Your task to perform on an android device: What's on my calendar today? Image 0: 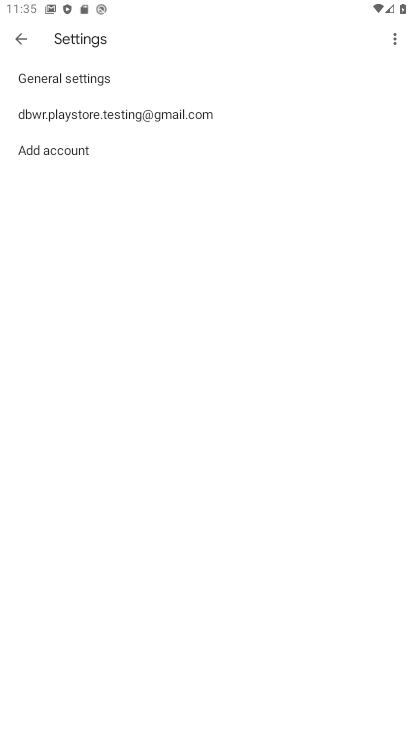
Step 0: press home button
Your task to perform on an android device: What's on my calendar today? Image 1: 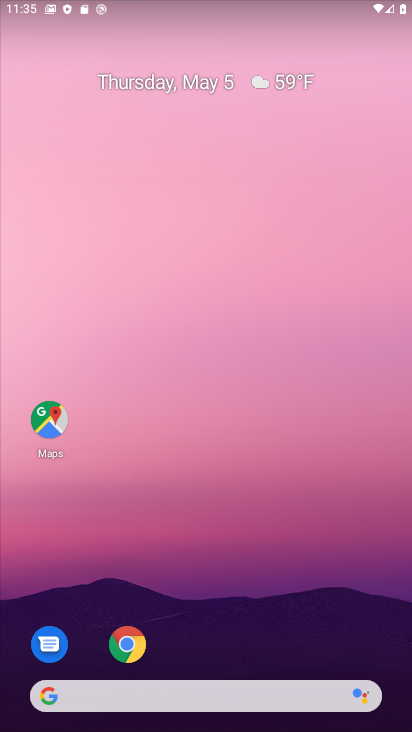
Step 1: drag from (185, 658) to (248, 80)
Your task to perform on an android device: What's on my calendar today? Image 2: 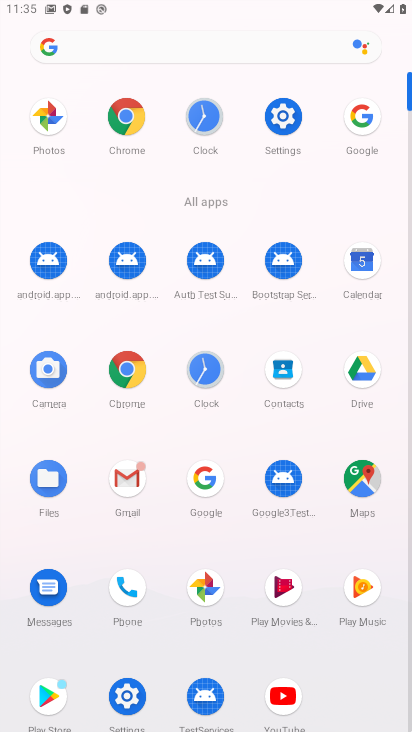
Step 2: click (357, 274)
Your task to perform on an android device: What's on my calendar today? Image 3: 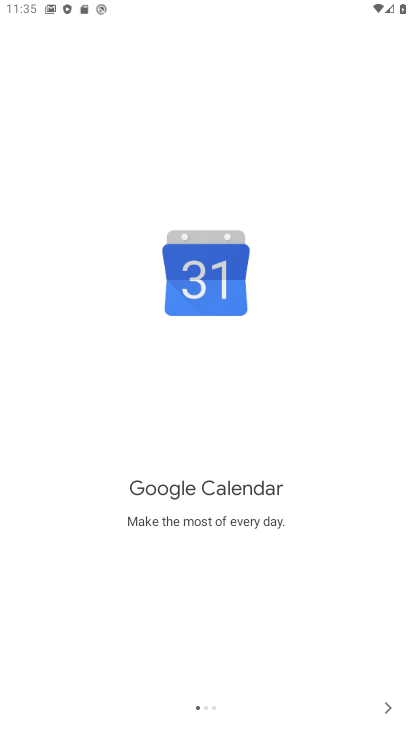
Step 3: click (389, 709)
Your task to perform on an android device: What's on my calendar today? Image 4: 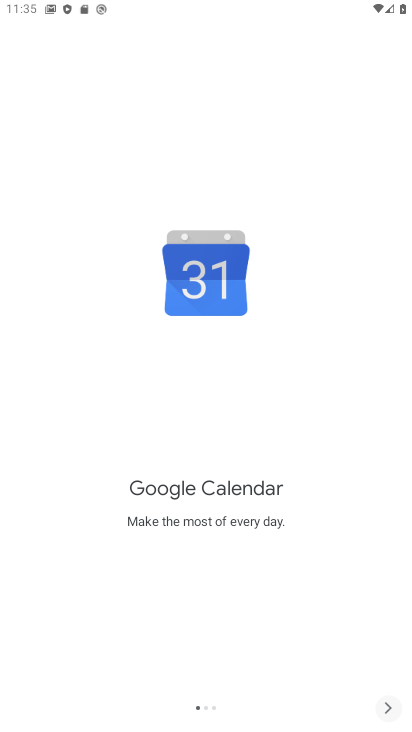
Step 4: click (389, 709)
Your task to perform on an android device: What's on my calendar today? Image 5: 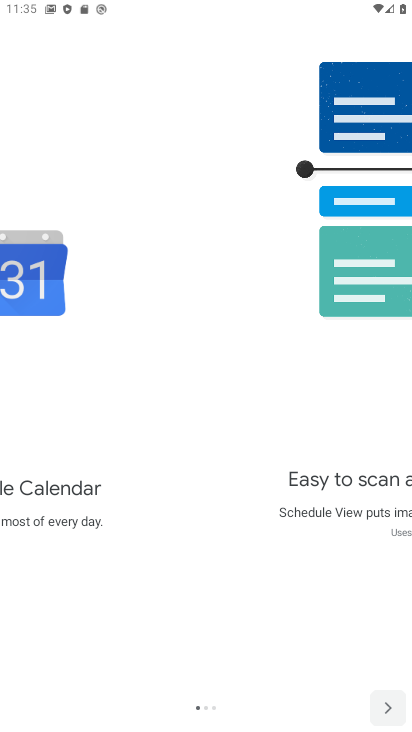
Step 5: click (389, 709)
Your task to perform on an android device: What's on my calendar today? Image 6: 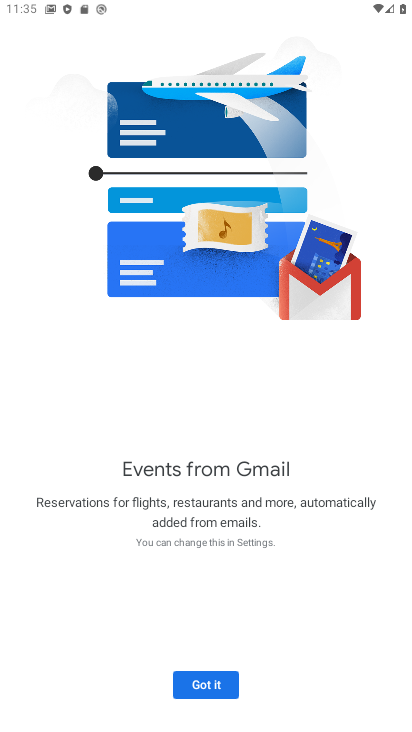
Step 6: click (186, 681)
Your task to perform on an android device: What's on my calendar today? Image 7: 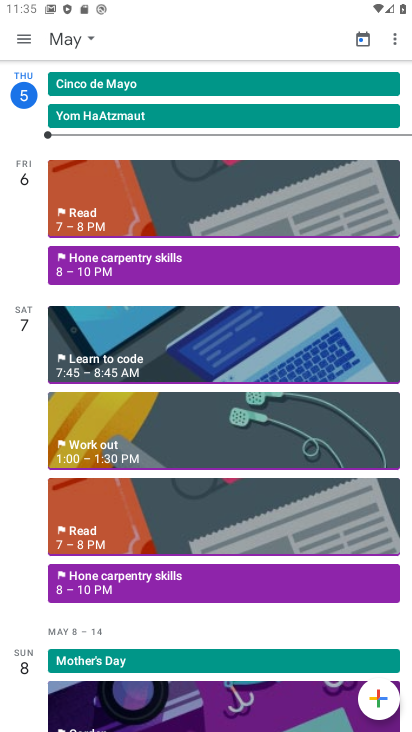
Step 7: click (21, 173)
Your task to perform on an android device: What's on my calendar today? Image 8: 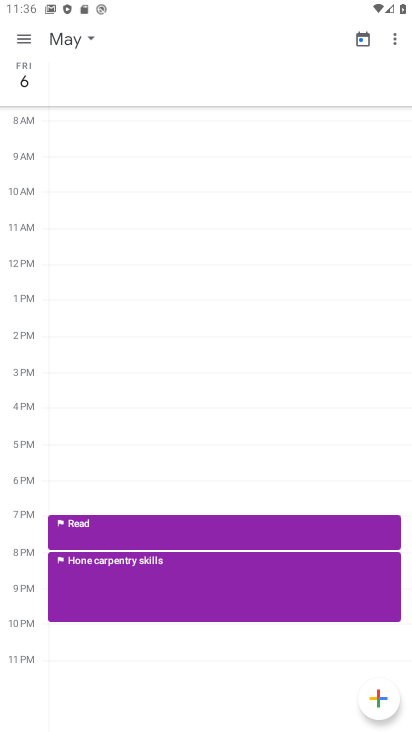
Step 8: task complete